Your task to perform on an android device: Is it going to rain today? Image 0: 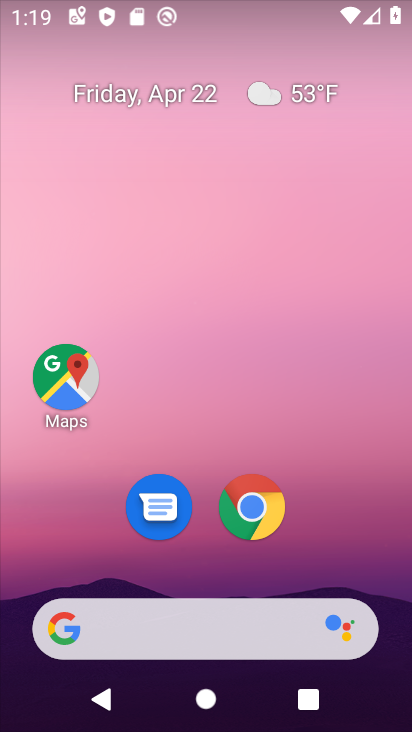
Step 0: drag from (327, 572) to (248, 171)
Your task to perform on an android device: Is it going to rain today? Image 1: 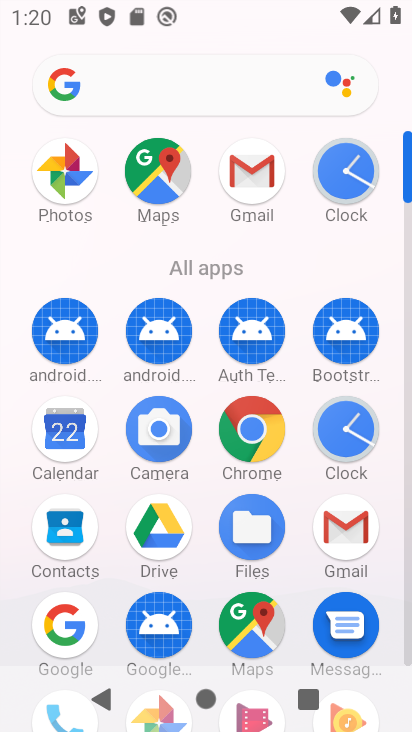
Step 1: drag from (166, 652) to (249, 251)
Your task to perform on an android device: Is it going to rain today? Image 2: 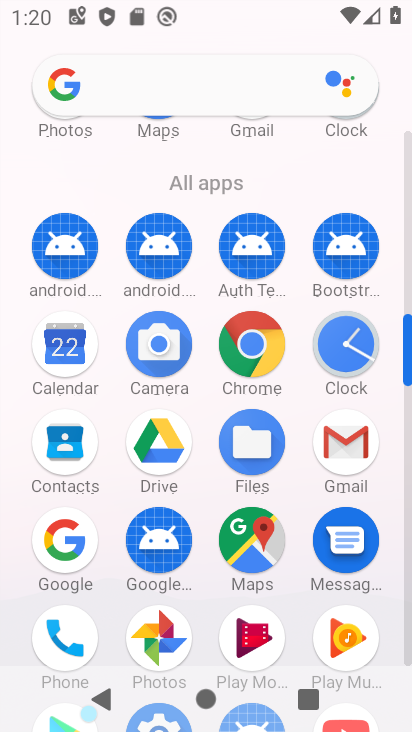
Step 2: drag from (177, 633) to (239, 300)
Your task to perform on an android device: Is it going to rain today? Image 3: 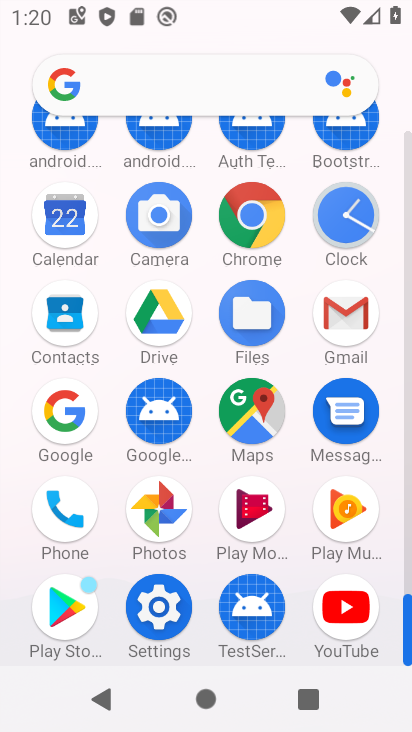
Step 3: click (75, 443)
Your task to perform on an android device: Is it going to rain today? Image 4: 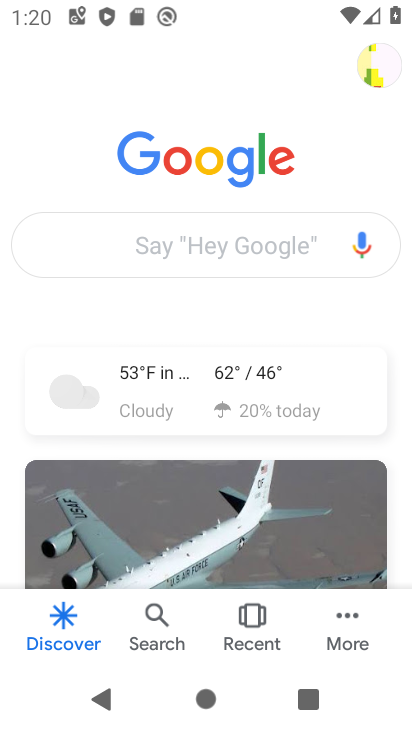
Step 4: click (147, 386)
Your task to perform on an android device: Is it going to rain today? Image 5: 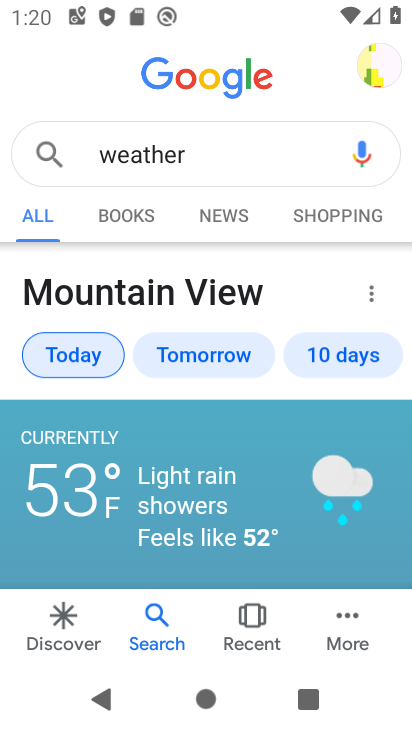
Step 5: task complete